Your task to perform on an android device: Show the shopping cart on ebay.com. Search for "razer blackwidow" on ebay.com, select the first entry, add it to the cart, then select checkout. Image 0: 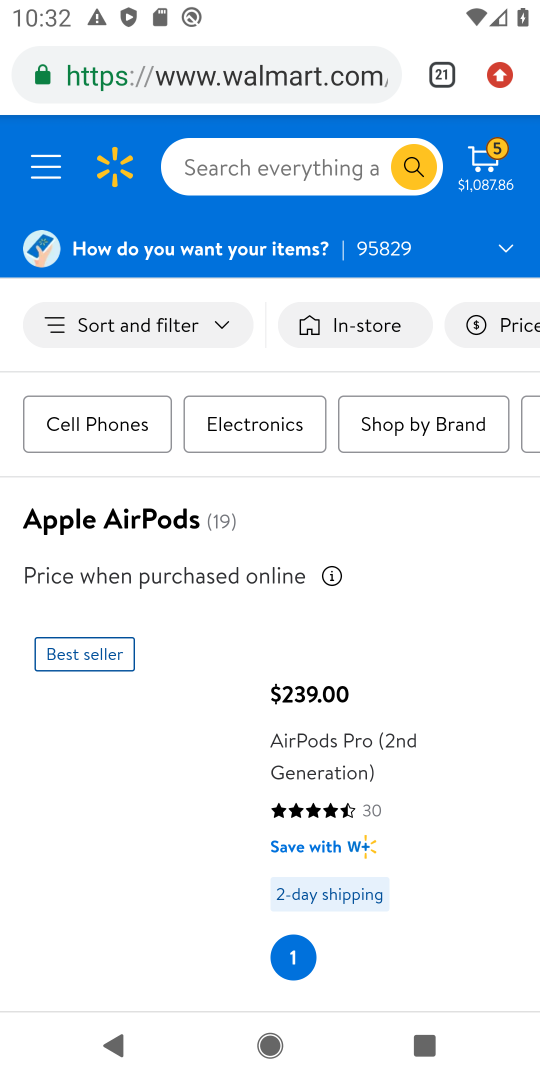
Step 0: click (319, 161)
Your task to perform on an android device: Show the shopping cart on ebay.com. Search for "razer blackwidow" on ebay.com, select the first entry, add it to the cart, then select checkout. Image 1: 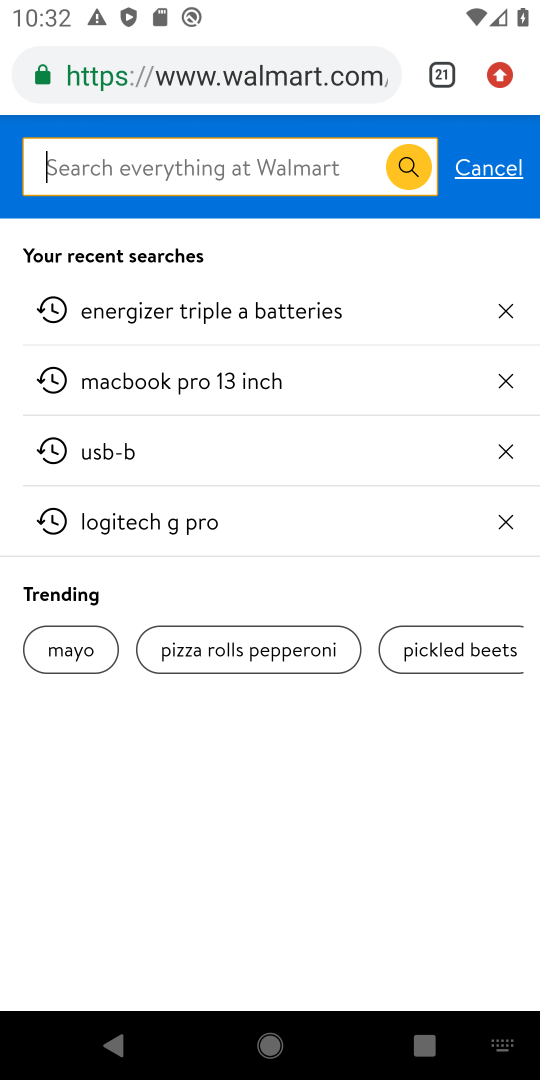
Step 1: press home button
Your task to perform on an android device: Show the shopping cart on ebay.com. Search for "razer blackwidow" on ebay.com, select the first entry, add it to the cart, then select checkout. Image 2: 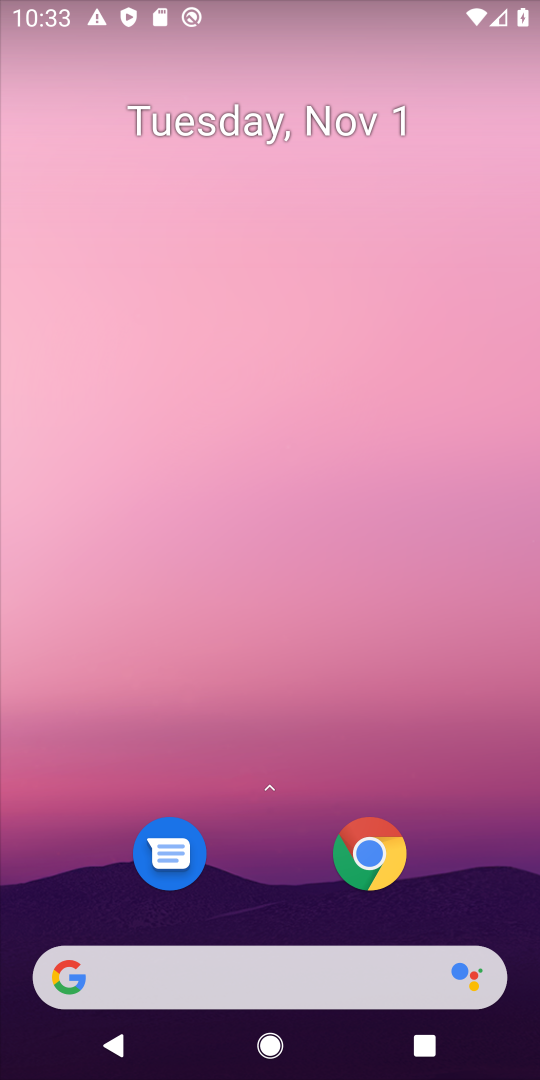
Step 2: click (270, 962)
Your task to perform on an android device: Show the shopping cart on ebay.com. Search for "razer blackwidow" on ebay.com, select the first entry, add it to the cart, then select checkout. Image 3: 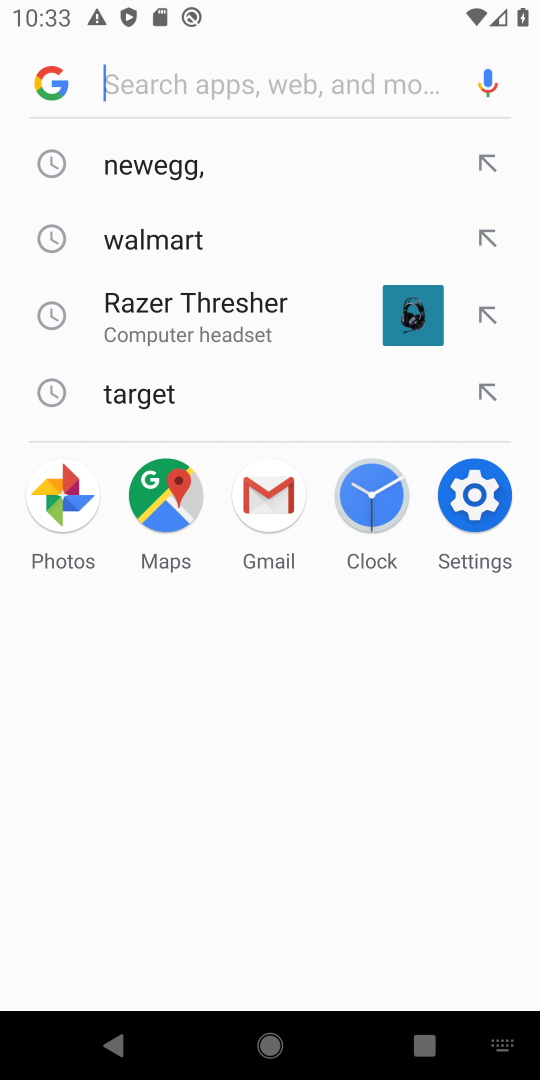
Step 3: type "razer blackwinwow"
Your task to perform on an android device: Show the shopping cart on ebay.com. Search for "razer blackwidow" on ebay.com, select the first entry, add it to the cart, then select checkout. Image 4: 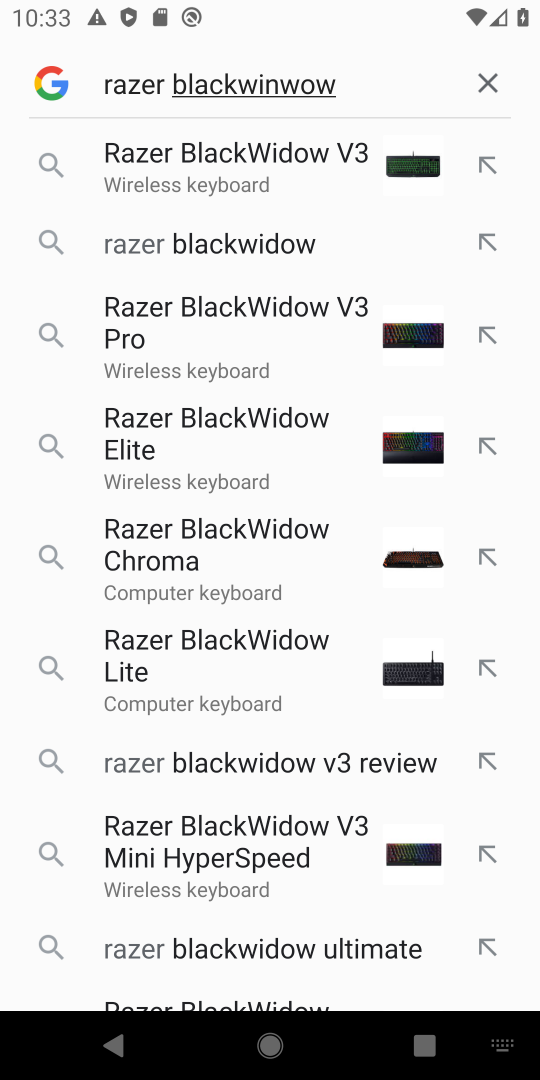
Step 4: click (194, 199)
Your task to perform on an android device: Show the shopping cart on ebay.com. Search for "razer blackwidow" on ebay.com, select the first entry, add it to the cart, then select checkout. Image 5: 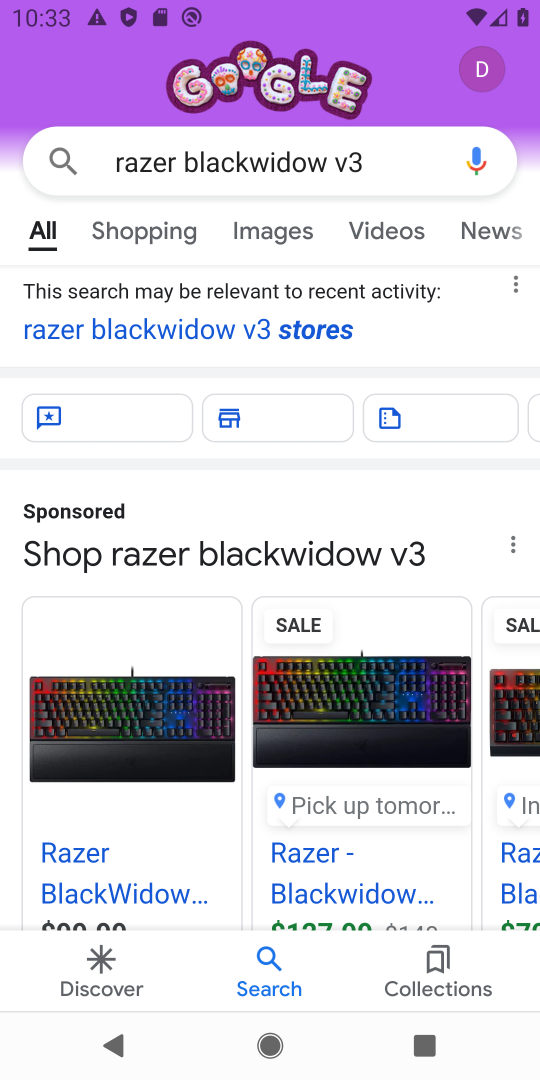
Step 5: task complete